Your task to perform on an android device: Search for "apple airpods pro" on target, select the first entry, and add it to the cart. Image 0: 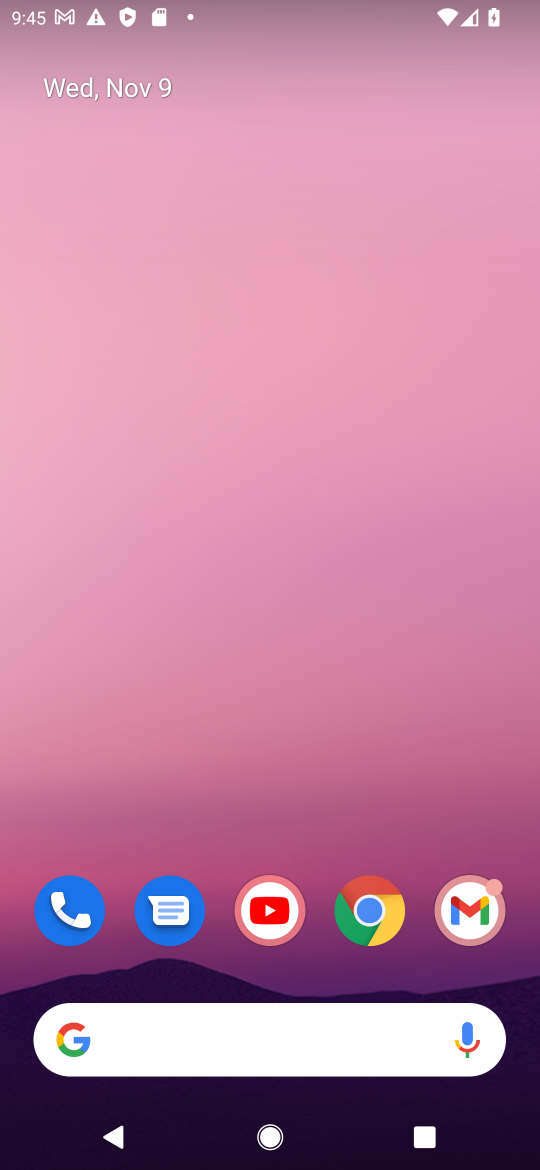
Step 0: click (379, 908)
Your task to perform on an android device: Search for "apple airpods pro" on target, select the first entry, and add it to the cart. Image 1: 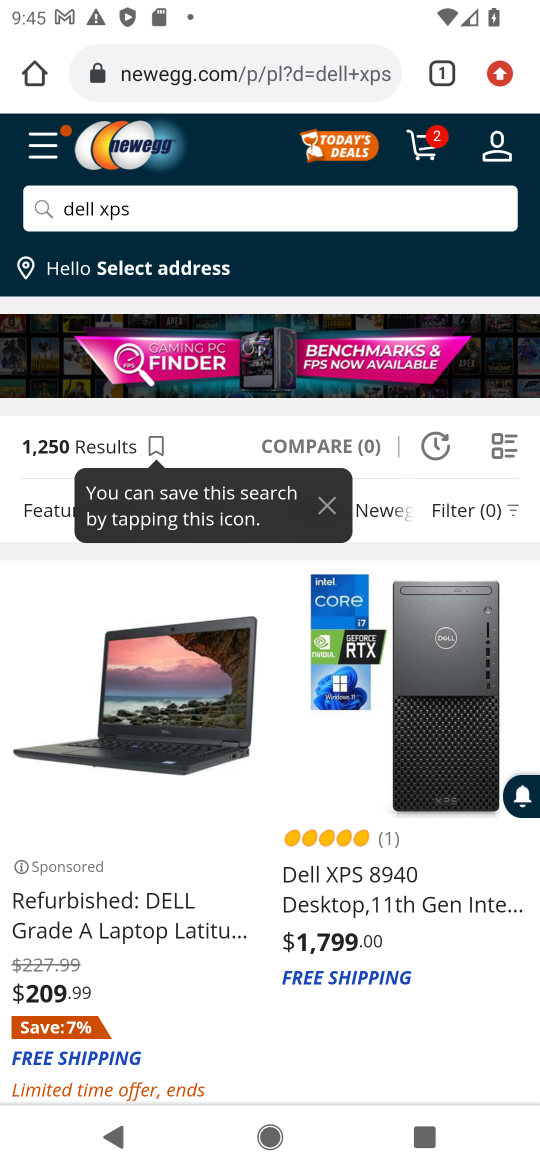
Step 1: click (237, 69)
Your task to perform on an android device: Search for "apple airpods pro" on target, select the first entry, and add it to the cart. Image 2: 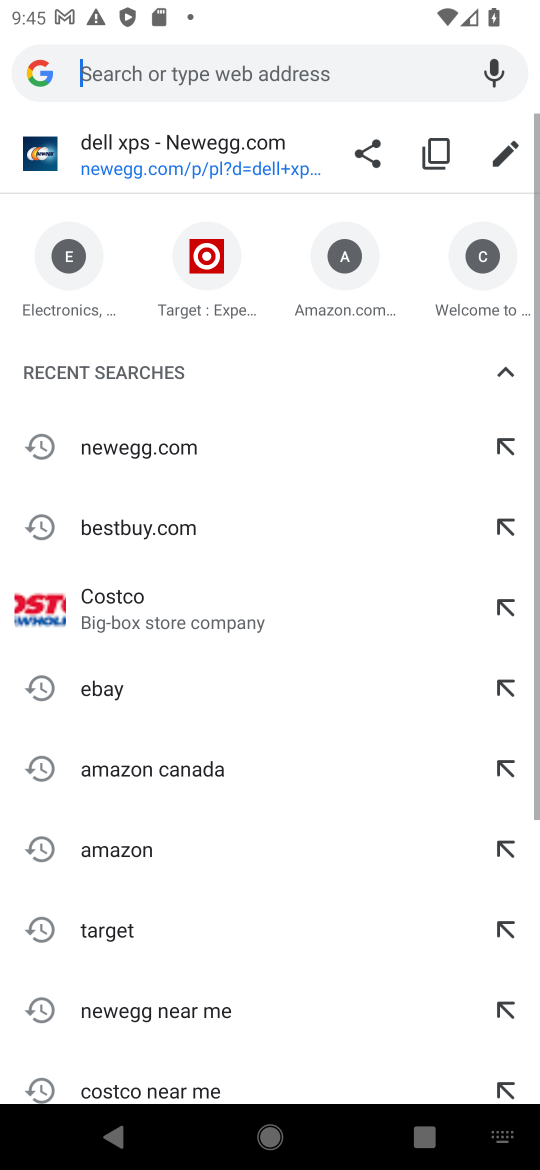
Step 2: click (204, 263)
Your task to perform on an android device: Search for "apple airpods pro" on target, select the first entry, and add it to the cart. Image 3: 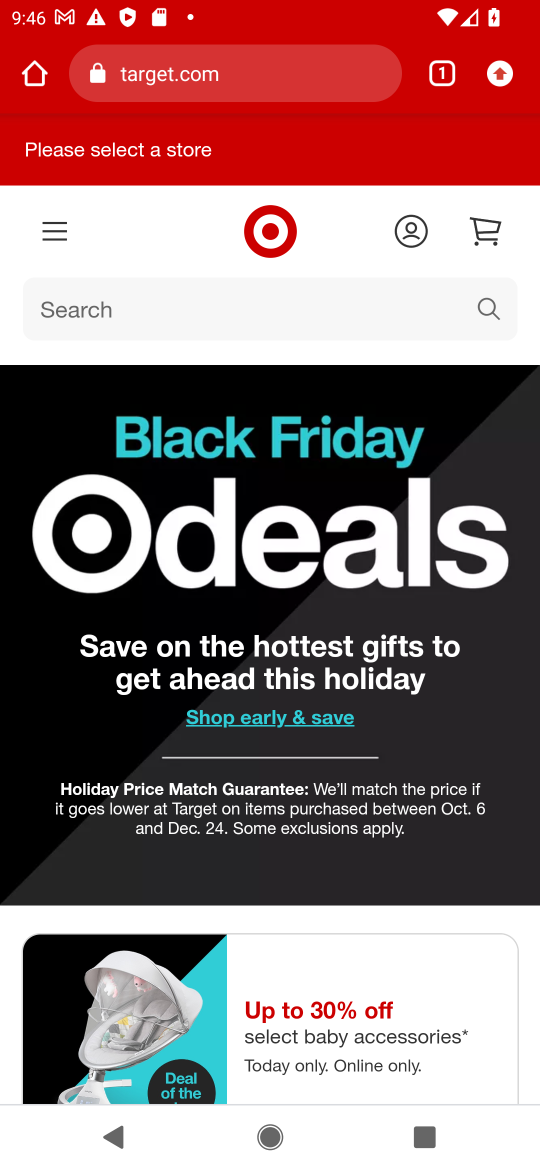
Step 3: click (489, 314)
Your task to perform on an android device: Search for "apple airpods pro" on target, select the first entry, and add it to the cart. Image 4: 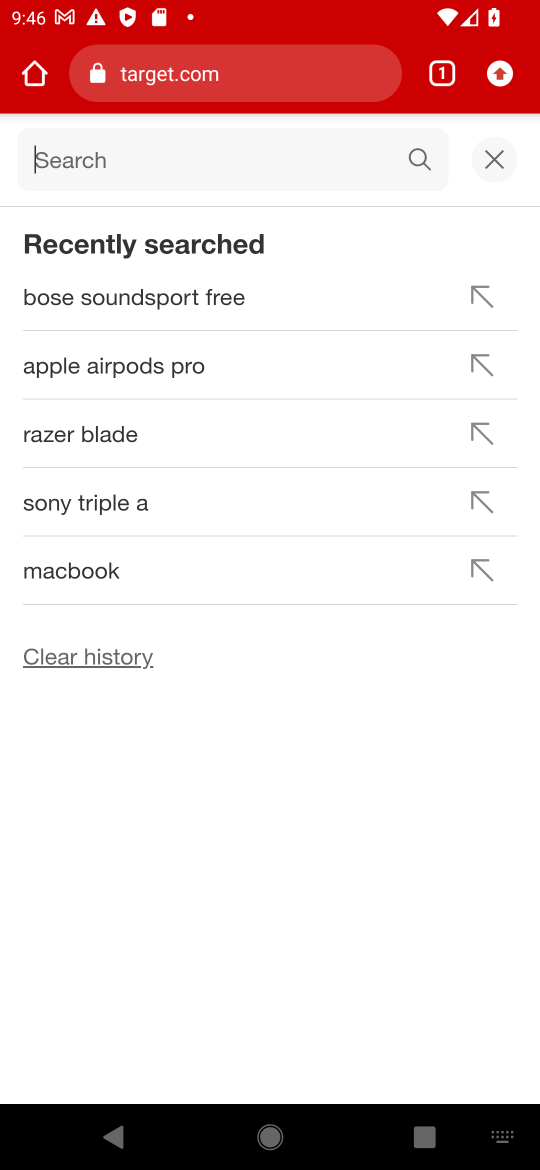
Step 4: type "apple airpods pro"
Your task to perform on an android device: Search for "apple airpods pro" on target, select the first entry, and add it to the cart. Image 5: 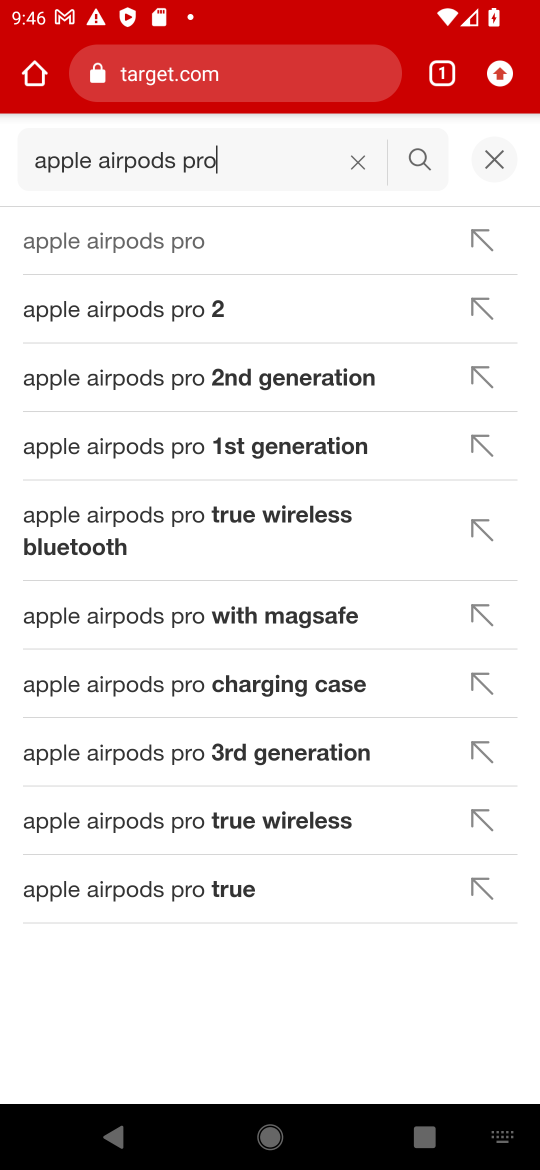
Step 5: click (142, 250)
Your task to perform on an android device: Search for "apple airpods pro" on target, select the first entry, and add it to the cart. Image 6: 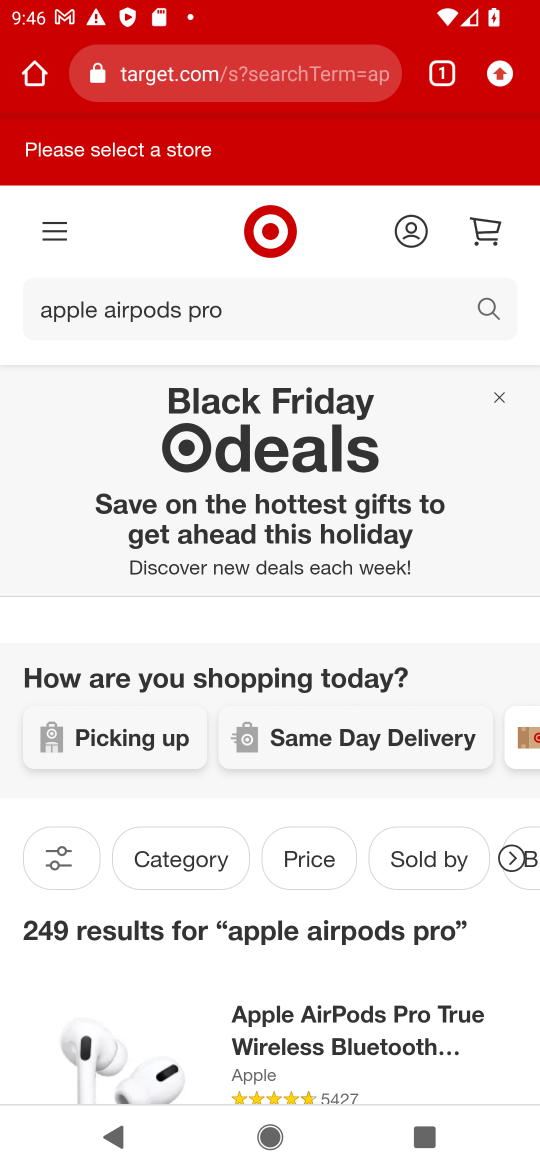
Step 6: drag from (232, 798) to (257, 474)
Your task to perform on an android device: Search for "apple airpods pro" on target, select the first entry, and add it to the cart. Image 7: 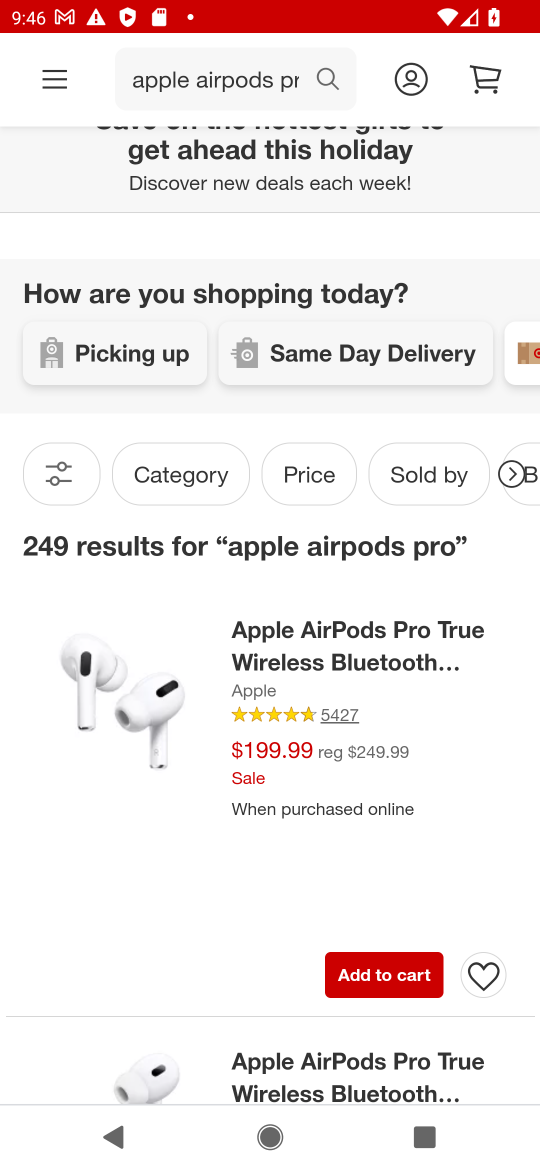
Step 7: click (363, 968)
Your task to perform on an android device: Search for "apple airpods pro" on target, select the first entry, and add it to the cart. Image 8: 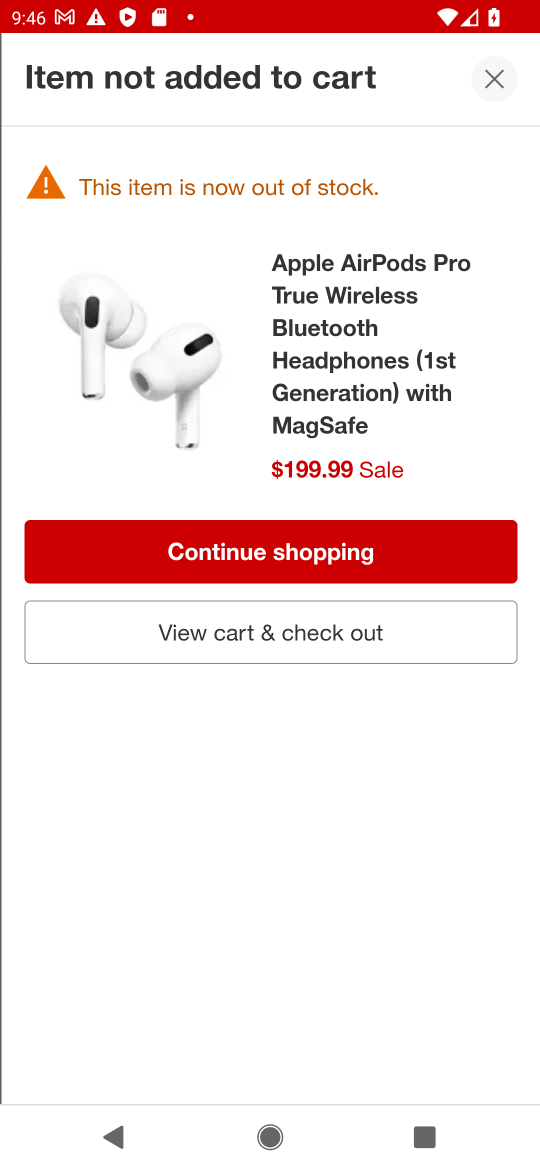
Step 8: task complete